Your task to perform on an android device: set an alarm Image 0: 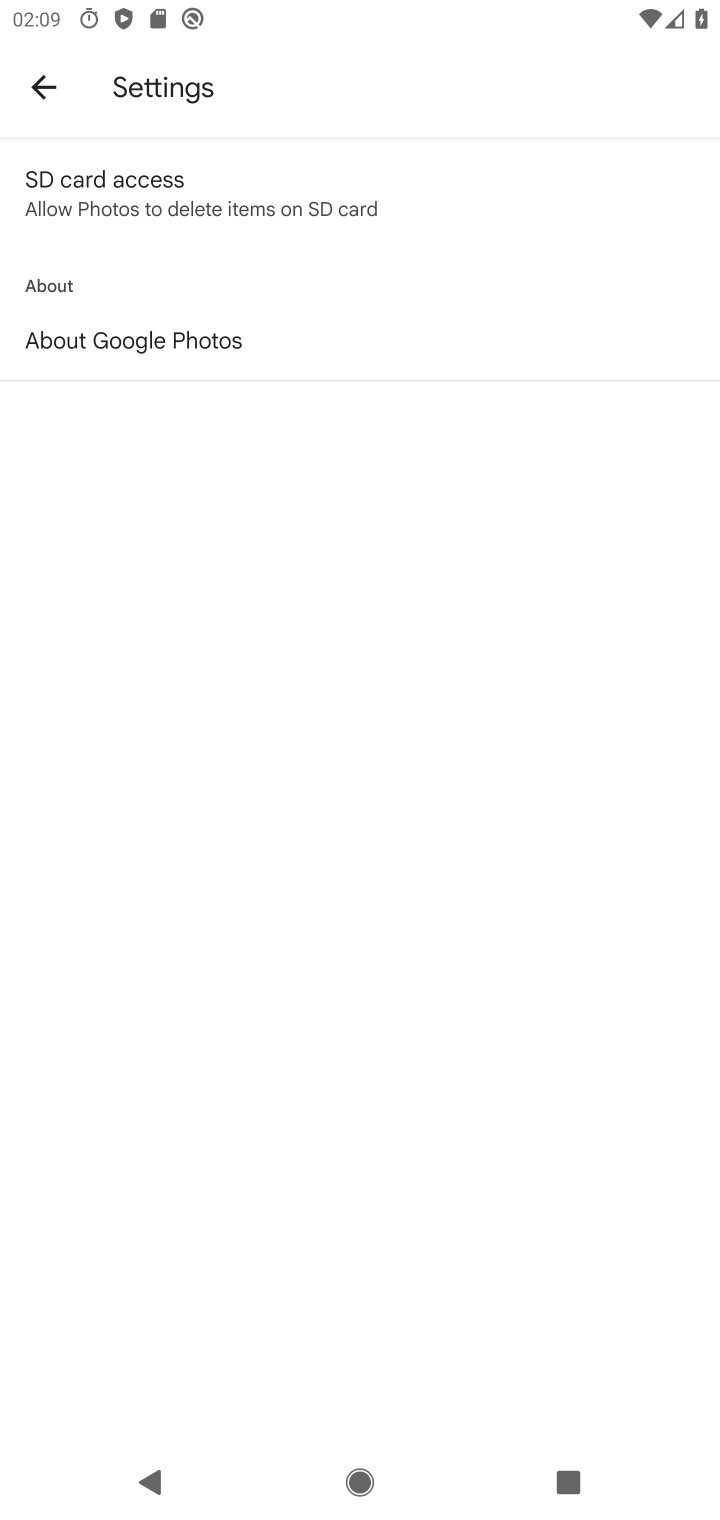
Step 0: press home button
Your task to perform on an android device: set an alarm Image 1: 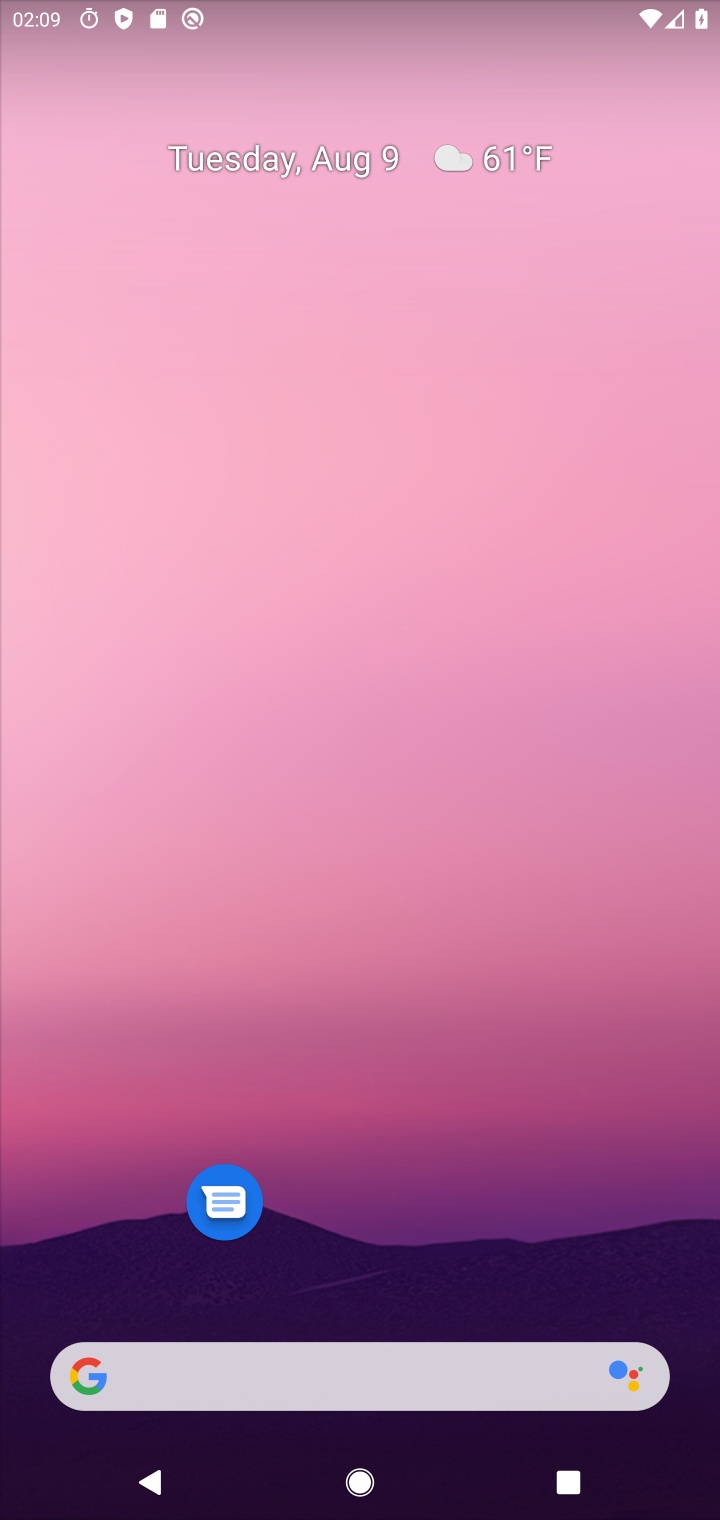
Step 1: drag from (361, 1364) to (344, 39)
Your task to perform on an android device: set an alarm Image 2: 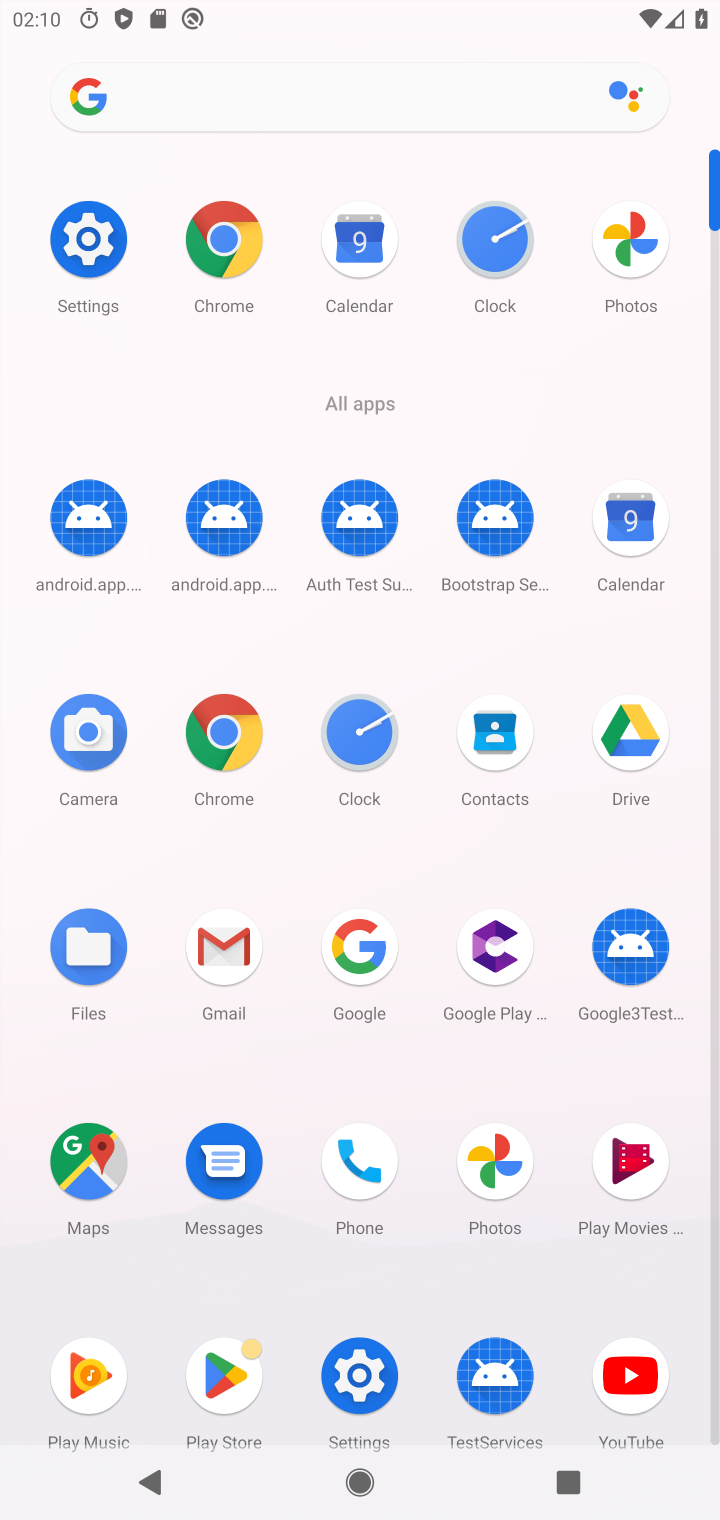
Step 2: click (366, 743)
Your task to perform on an android device: set an alarm Image 3: 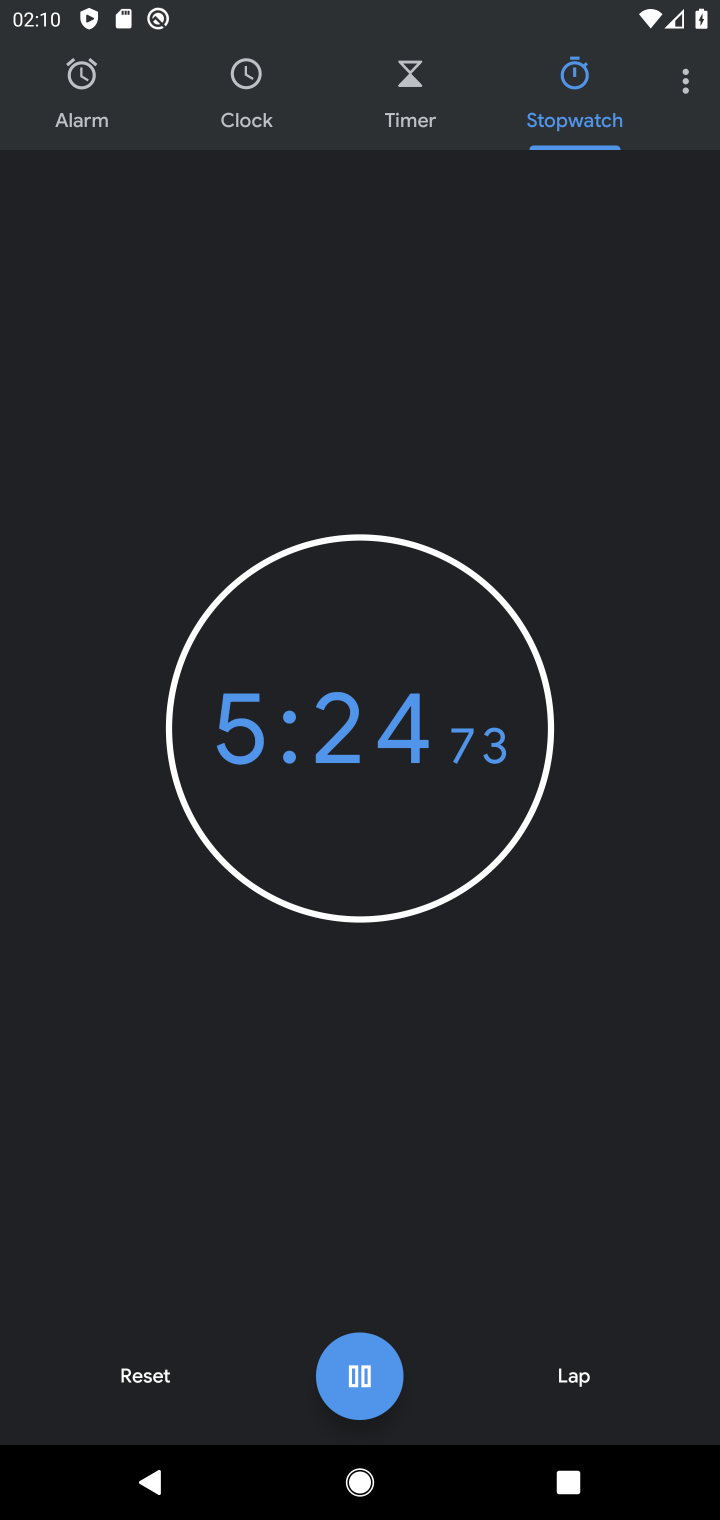
Step 3: click (70, 89)
Your task to perform on an android device: set an alarm Image 4: 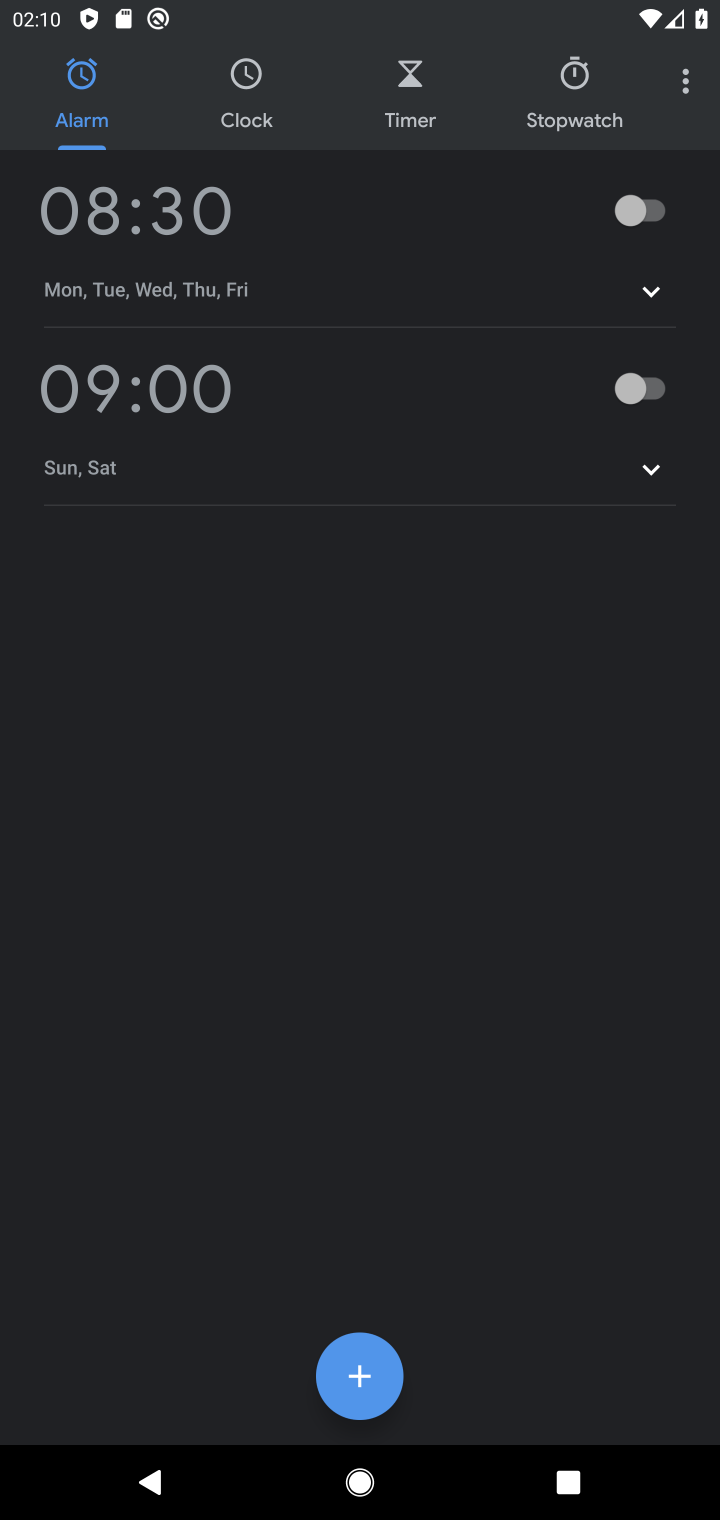
Step 4: click (670, 217)
Your task to perform on an android device: set an alarm Image 5: 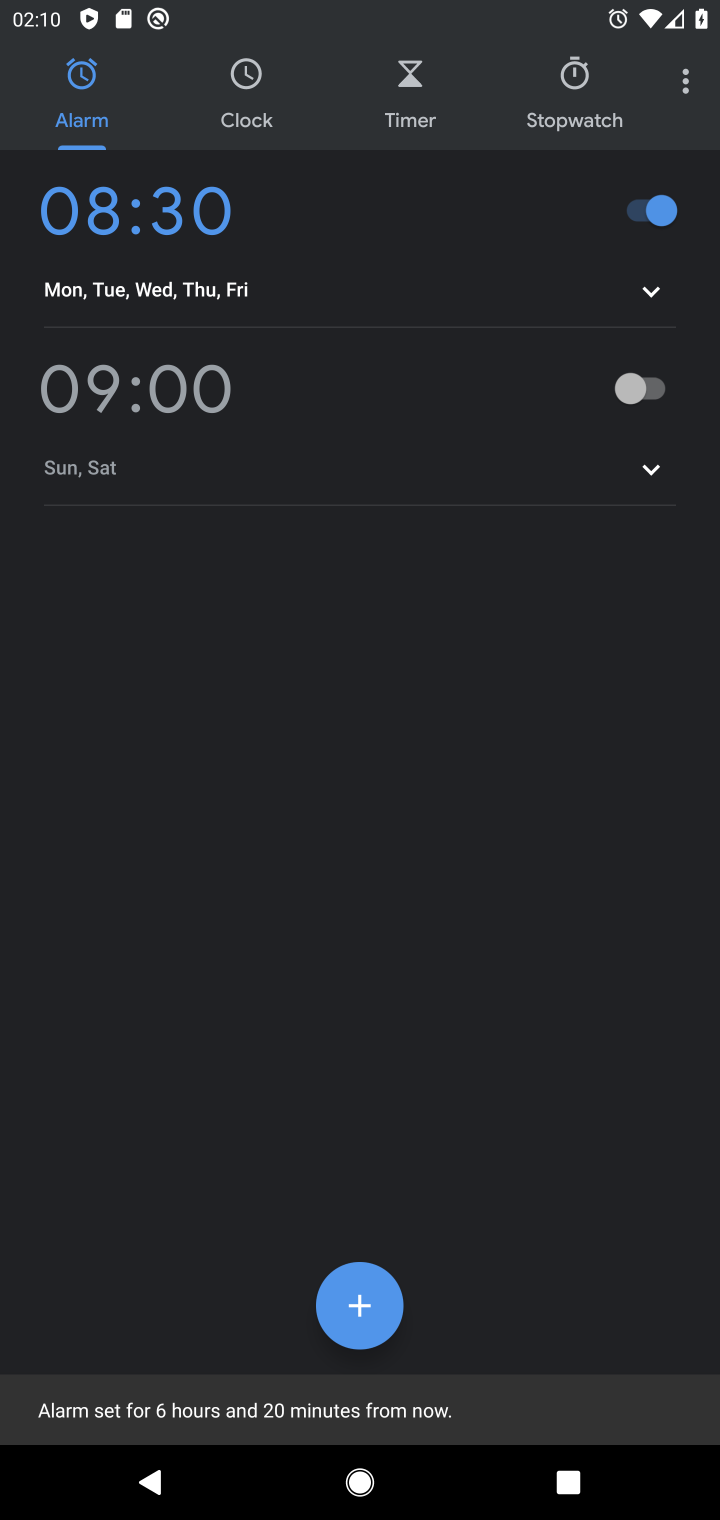
Step 5: task complete